Your task to perform on an android device: Open eBay Image 0: 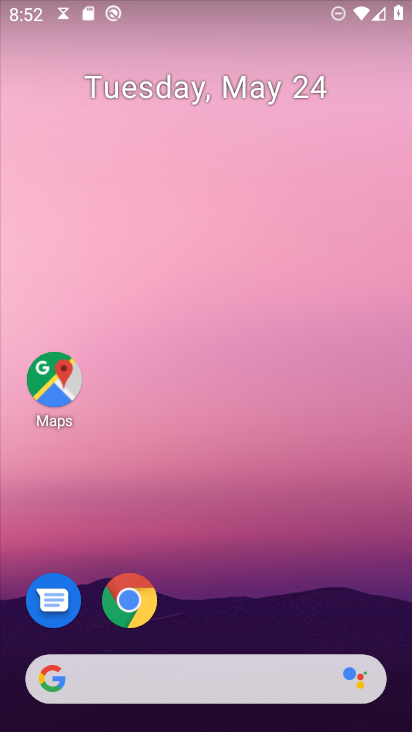
Step 0: click (111, 605)
Your task to perform on an android device: Open eBay Image 1: 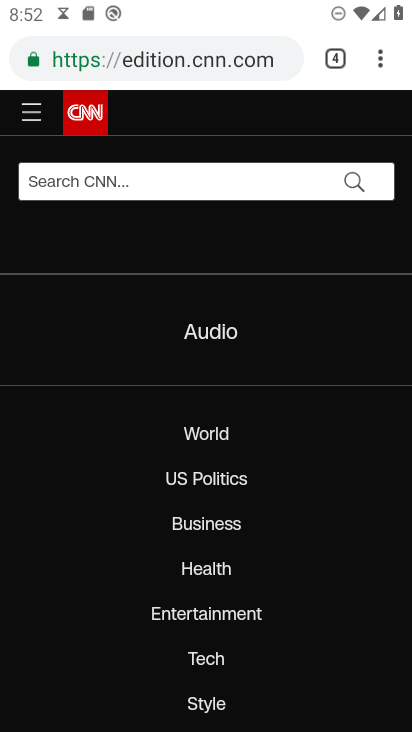
Step 1: click (340, 59)
Your task to perform on an android device: Open eBay Image 2: 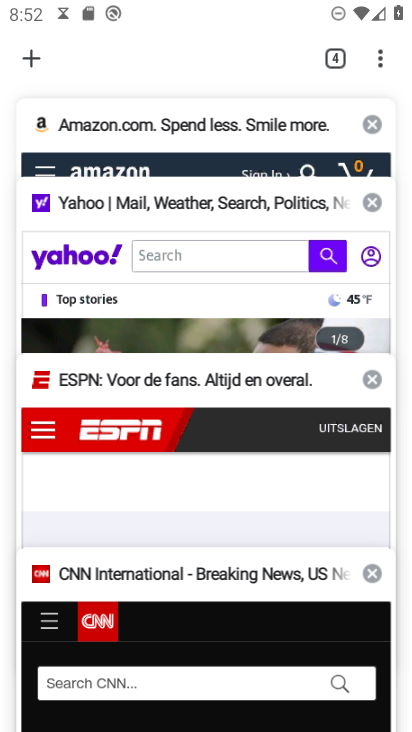
Step 2: click (29, 54)
Your task to perform on an android device: Open eBay Image 3: 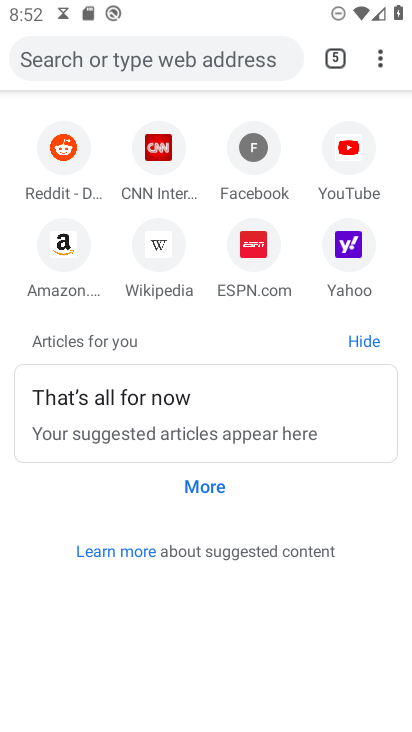
Step 3: click (159, 66)
Your task to perform on an android device: Open eBay Image 4: 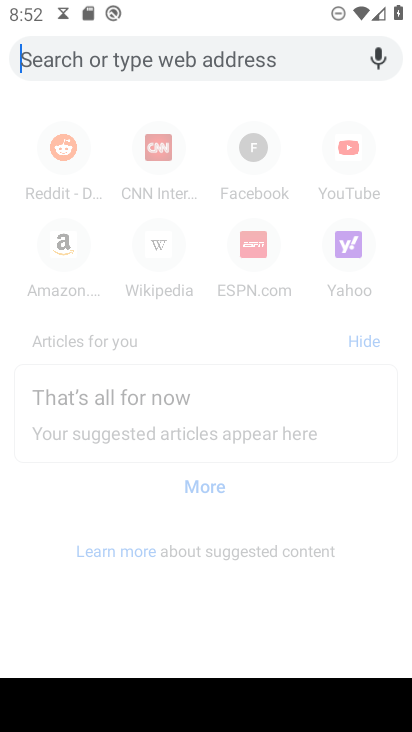
Step 4: type "ebay"
Your task to perform on an android device: Open eBay Image 5: 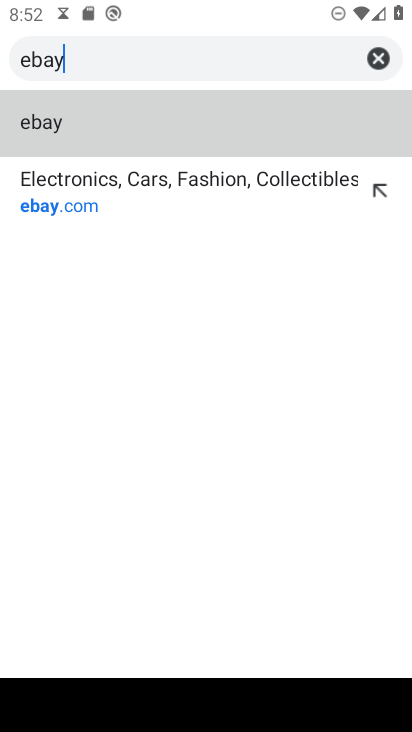
Step 5: click (85, 186)
Your task to perform on an android device: Open eBay Image 6: 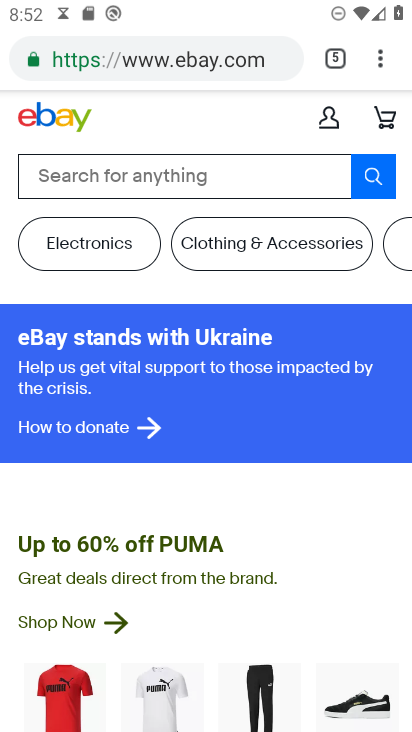
Step 6: task complete